Your task to perform on an android device: toggle improve location accuracy Image 0: 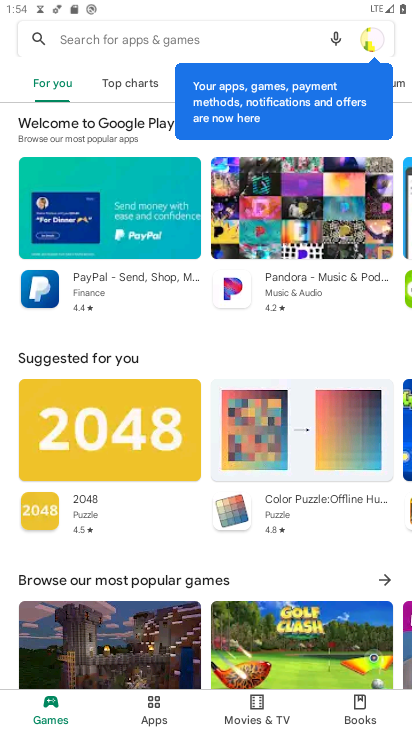
Step 0: press home button
Your task to perform on an android device: toggle improve location accuracy Image 1: 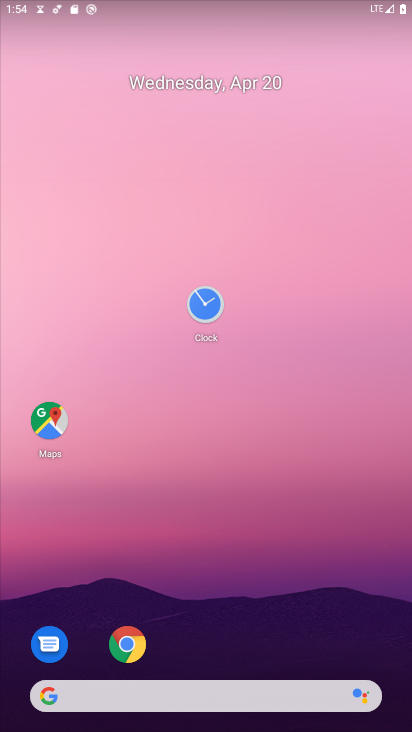
Step 1: drag from (334, 518) to (366, 195)
Your task to perform on an android device: toggle improve location accuracy Image 2: 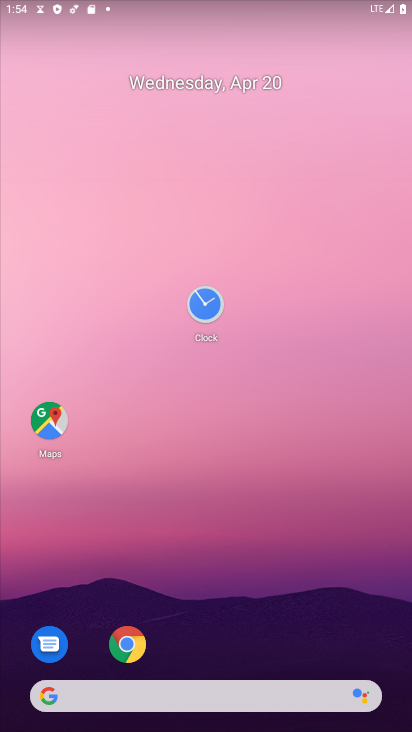
Step 2: drag from (354, 614) to (408, 135)
Your task to perform on an android device: toggle improve location accuracy Image 3: 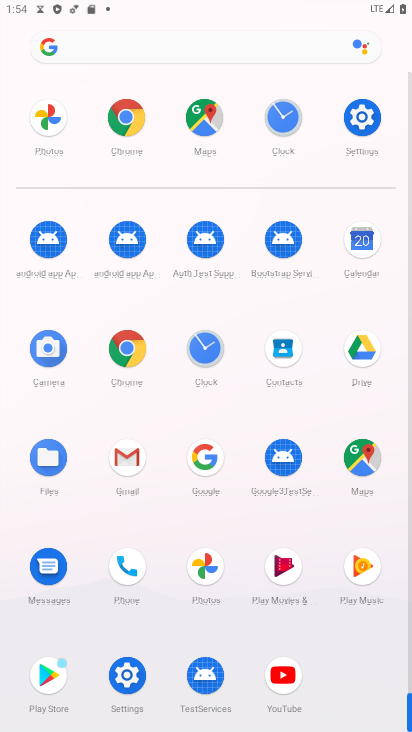
Step 3: click (139, 674)
Your task to perform on an android device: toggle improve location accuracy Image 4: 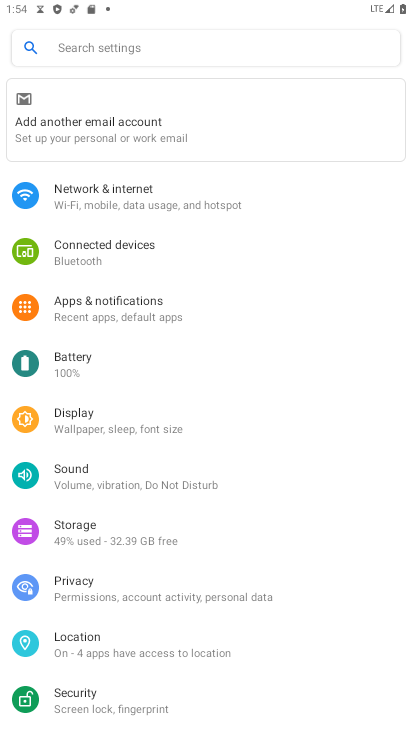
Step 4: click (181, 650)
Your task to perform on an android device: toggle improve location accuracy Image 5: 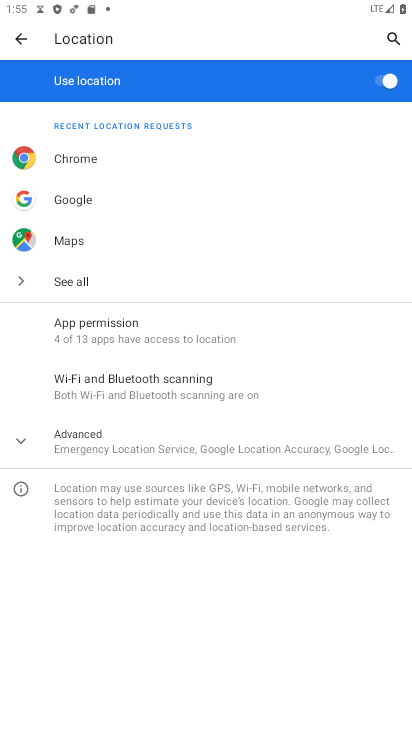
Step 5: click (124, 442)
Your task to perform on an android device: toggle improve location accuracy Image 6: 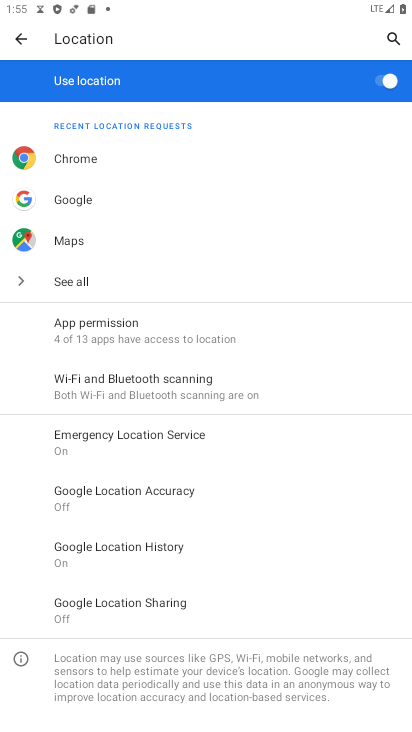
Step 6: click (176, 512)
Your task to perform on an android device: toggle improve location accuracy Image 7: 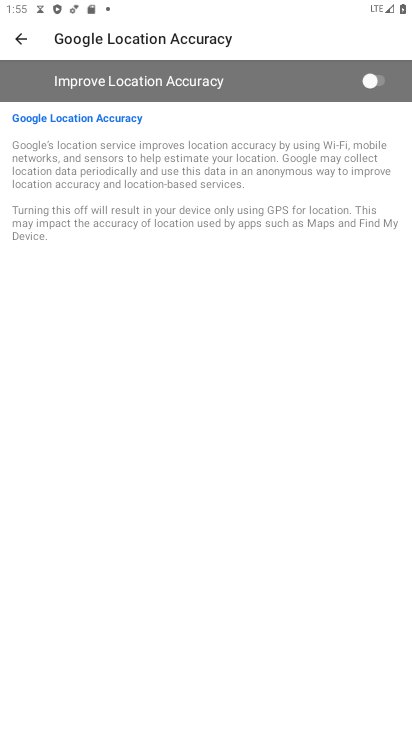
Step 7: click (378, 77)
Your task to perform on an android device: toggle improve location accuracy Image 8: 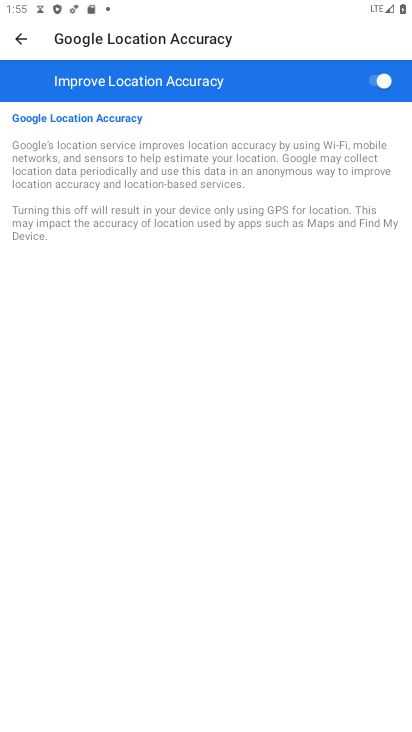
Step 8: task complete